Your task to perform on an android device: Open calendar and show me the second week of next month Image 0: 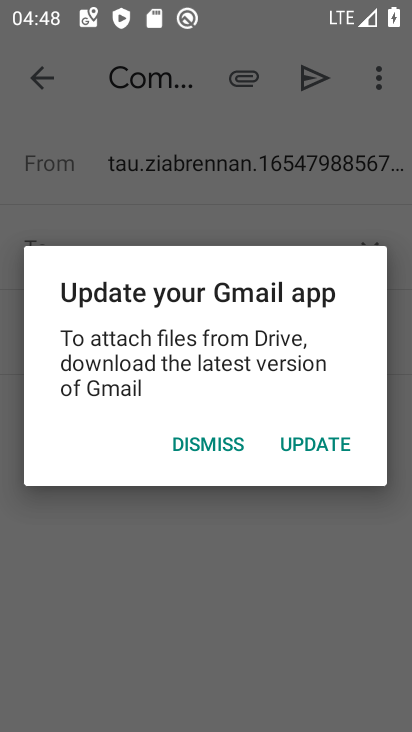
Step 0: press back button
Your task to perform on an android device: Open calendar and show me the second week of next month Image 1: 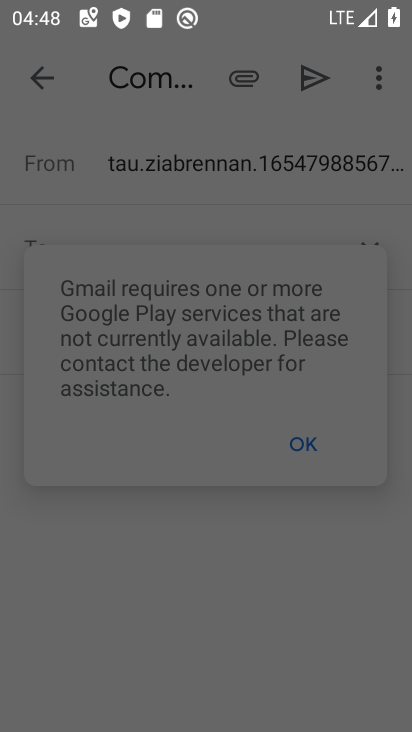
Step 1: press home button
Your task to perform on an android device: Open calendar and show me the second week of next month Image 2: 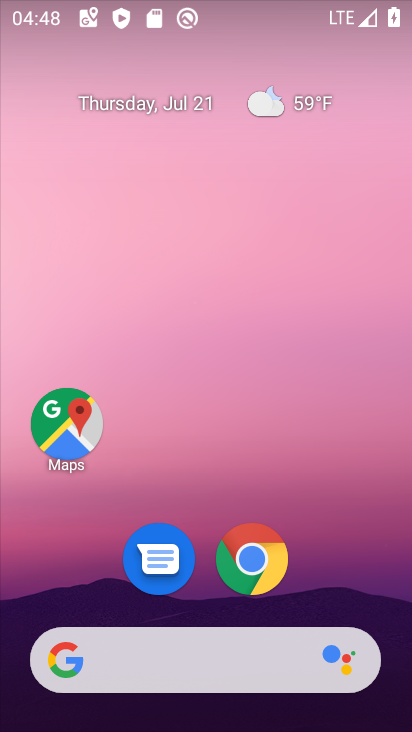
Step 2: drag from (65, 517) to (205, 22)
Your task to perform on an android device: Open calendar and show me the second week of next month Image 3: 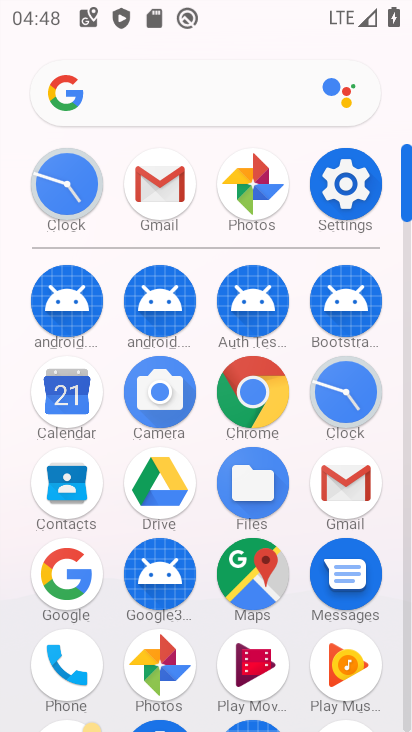
Step 3: click (60, 412)
Your task to perform on an android device: Open calendar and show me the second week of next month Image 4: 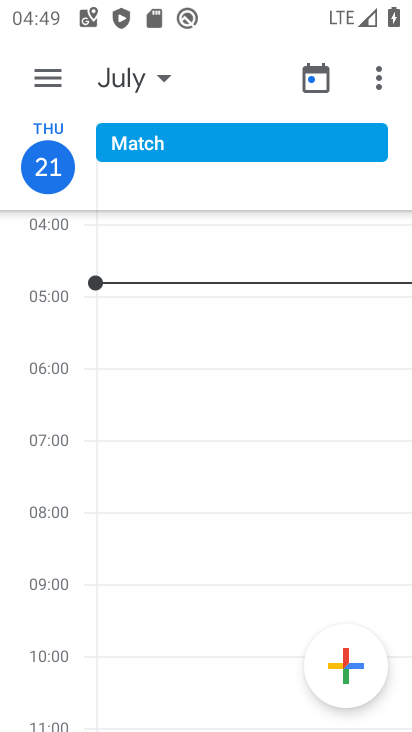
Step 4: click (163, 61)
Your task to perform on an android device: Open calendar and show me the second week of next month Image 5: 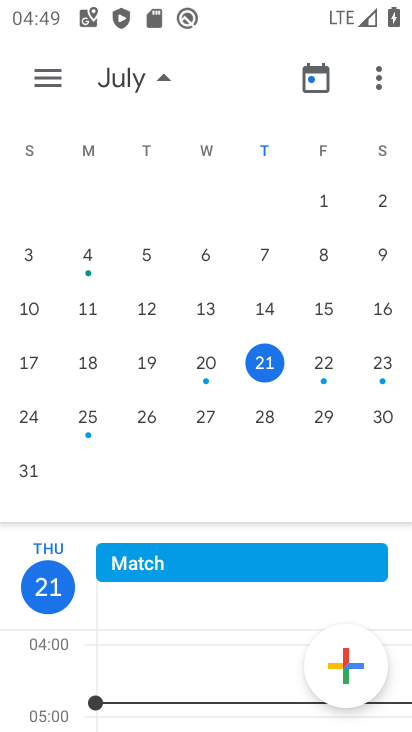
Step 5: drag from (373, 353) to (55, 330)
Your task to perform on an android device: Open calendar and show me the second week of next month Image 6: 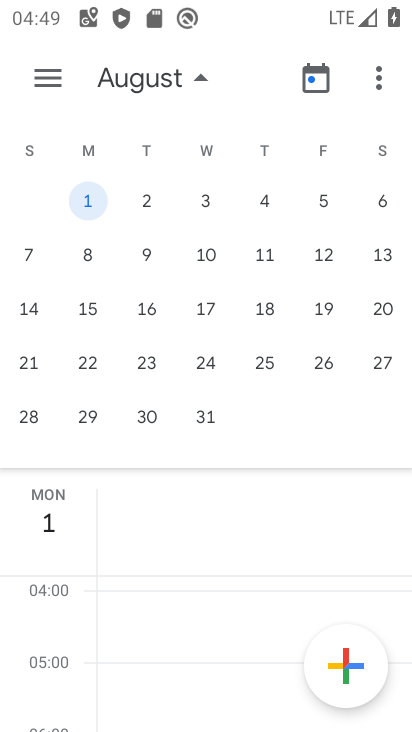
Step 6: click (84, 245)
Your task to perform on an android device: Open calendar and show me the second week of next month Image 7: 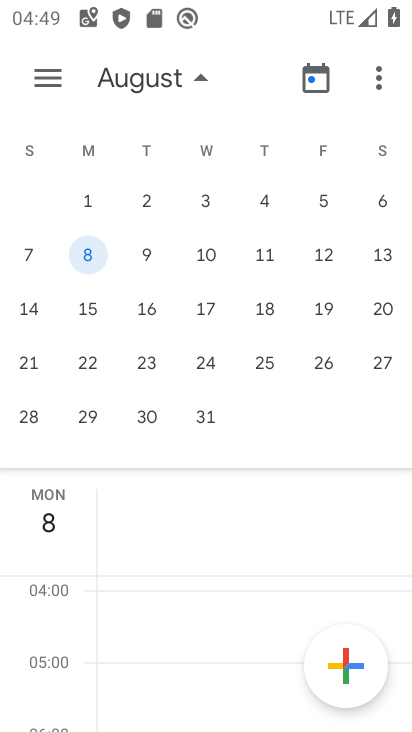
Step 7: task complete